Your task to perform on an android device: Open CNN.com Image 0: 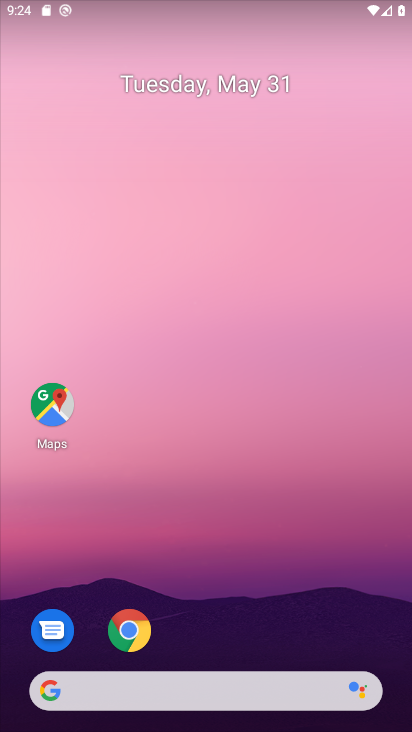
Step 0: click (121, 630)
Your task to perform on an android device: Open CNN.com Image 1: 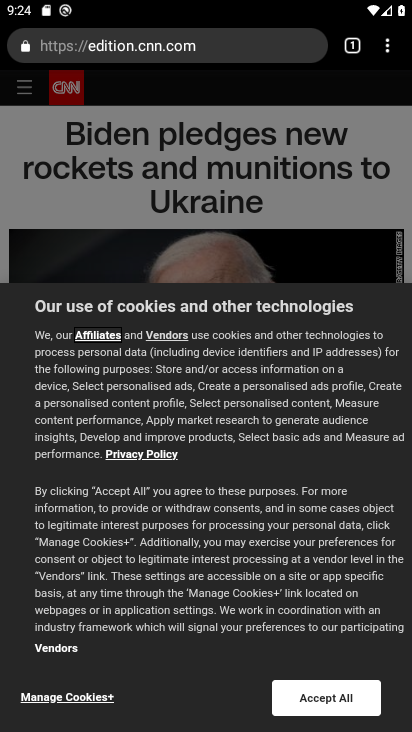
Step 1: task complete